Your task to perform on an android device: turn on translation in the chrome app Image 0: 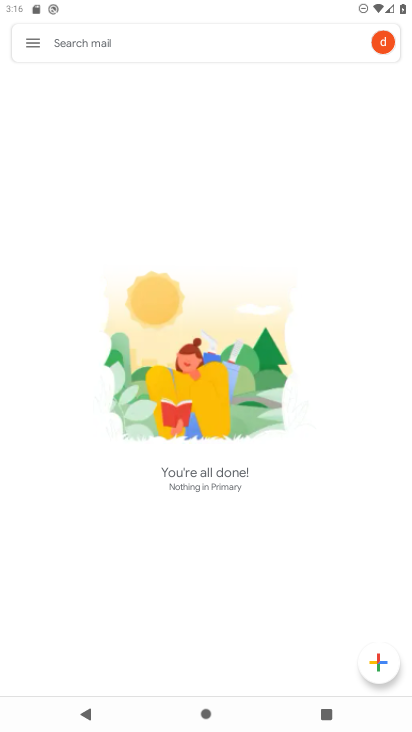
Step 0: press home button
Your task to perform on an android device: turn on translation in the chrome app Image 1: 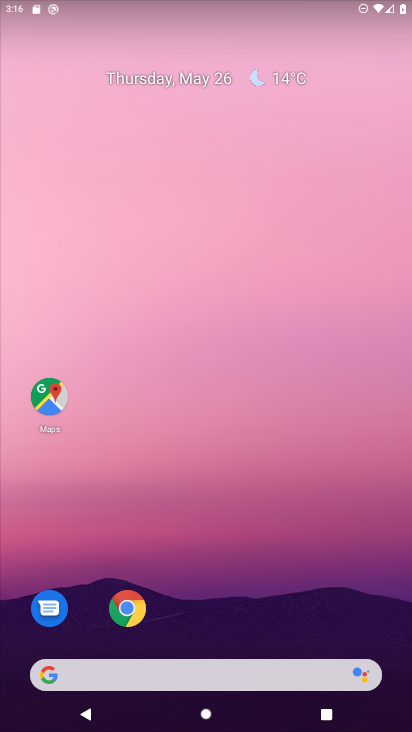
Step 1: drag from (306, 565) to (333, 86)
Your task to perform on an android device: turn on translation in the chrome app Image 2: 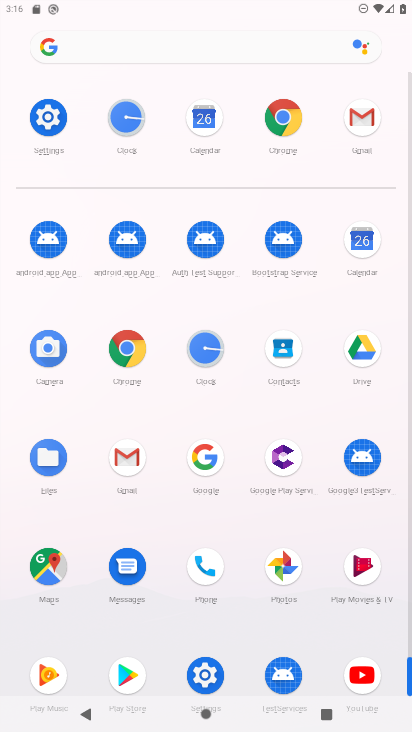
Step 2: click (294, 127)
Your task to perform on an android device: turn on translation in the chrome app Image 3: 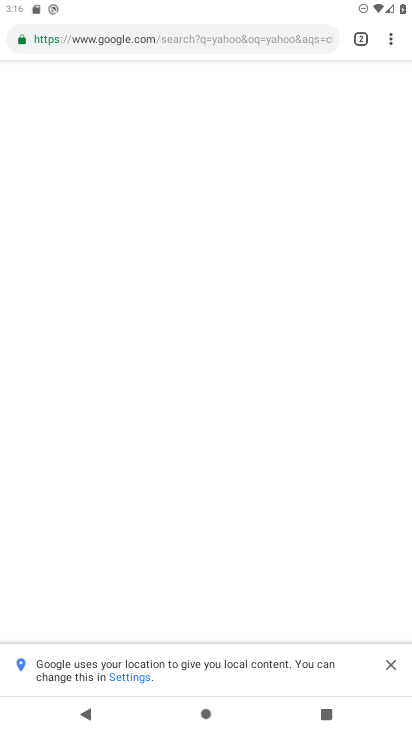
Step 3: drag from (401, 40) to (273, 426)
Your task to perform on an android device: turn on translation in the chrome app Image 4: 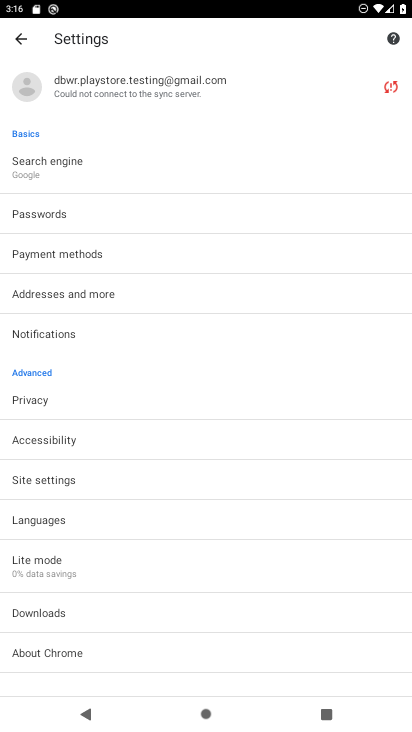
Step 4: click (74, 519)
Your task to perform on an android device: turn on translation in the chrome app Image 5: 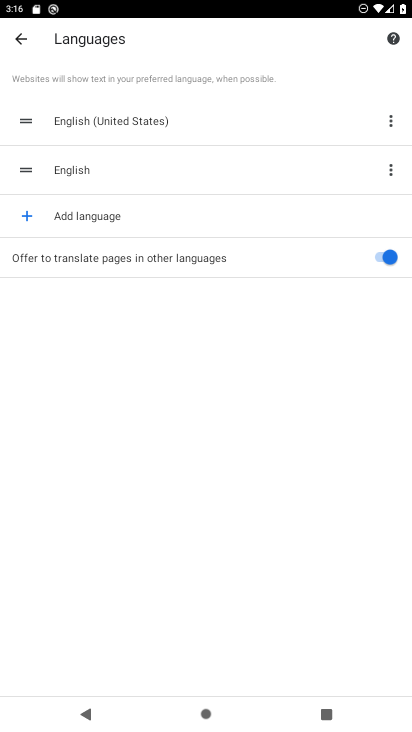
Step 5: task complete